Your task to perform on an android device: turn on airplane mode Image 0: 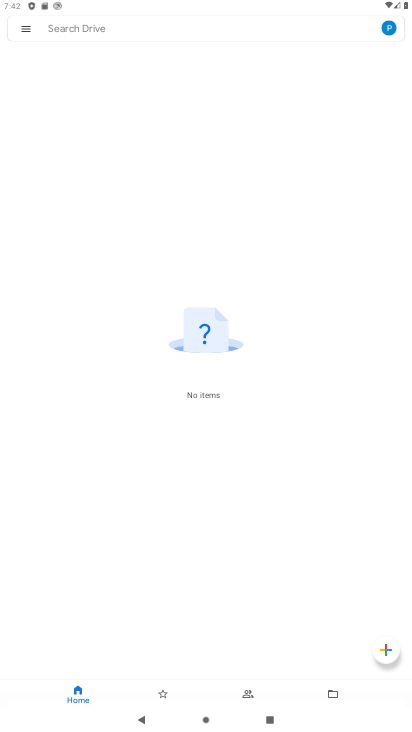
Step 0: press home button
Your task to perform on an android device: turn on airplane mode Image 1: 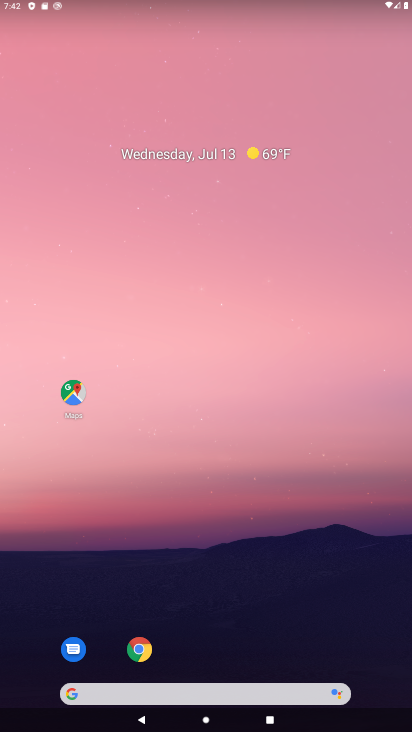
Step 1: drag from (195, 676) to (236, 308)
Your task to perform on an android device: turn on airplane mode Image 2: 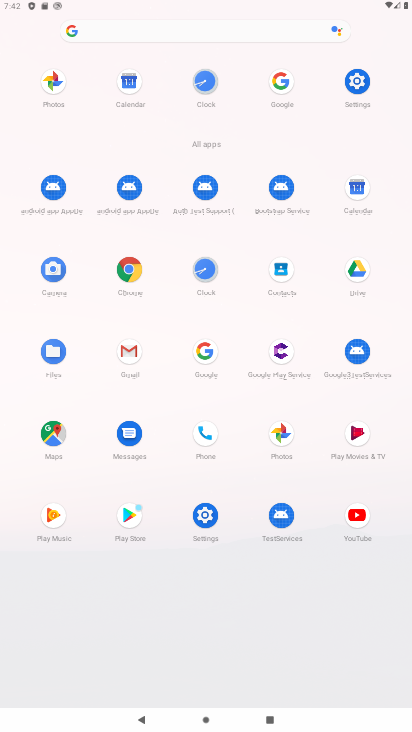
Step 2: click (353, 86)
Your task to perform on an android device: turn on airplane mode Image 3: 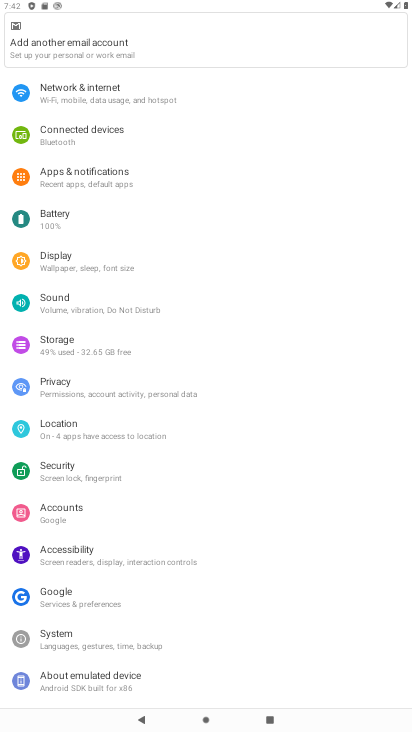
Step 3: click (78, 83)
Your task to perform on an android device: turn on airplane mode Image 4: 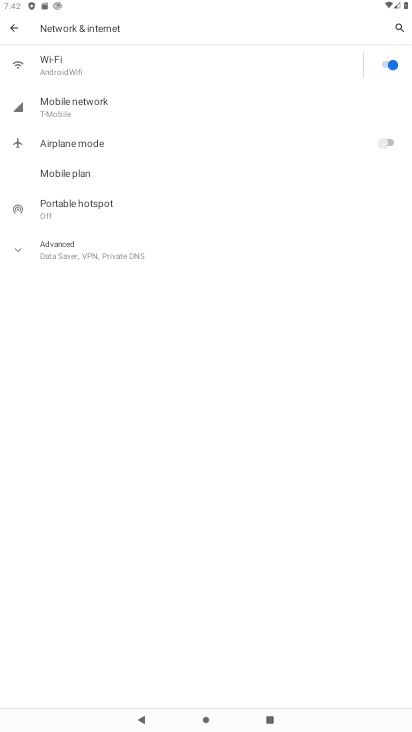
Step 4: click (392, 139)
Your task to perform on an android device: turn on airplane mode Image 5: 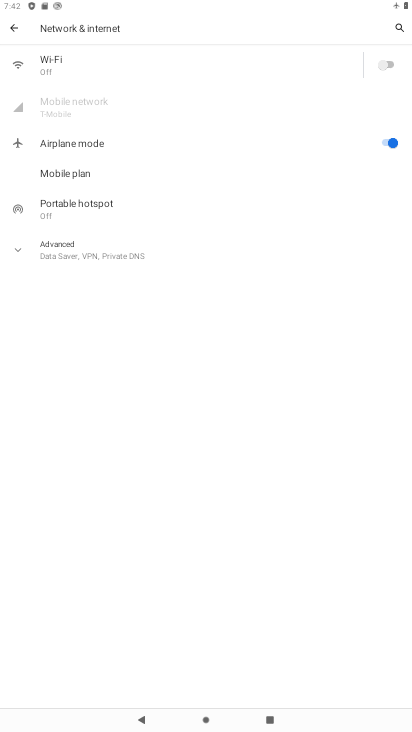
Step 5: task complete